Your task to perform on an android device: Is it going to rain today? Image 0: 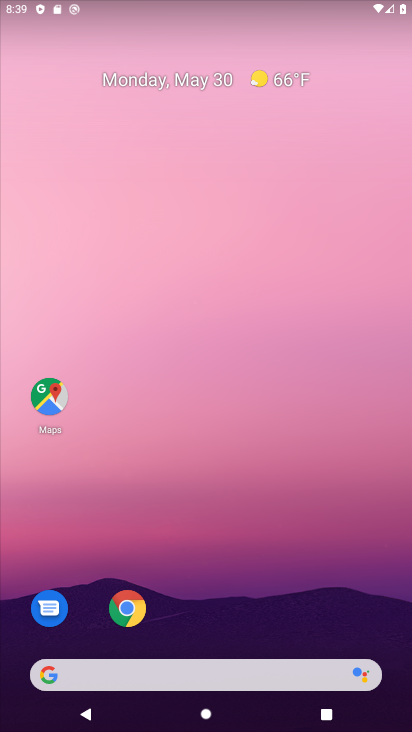
Step 0: drag from (248, 720) to (208, 65)
Your task to perform on an android device: Is it going to rain today? Image 1: 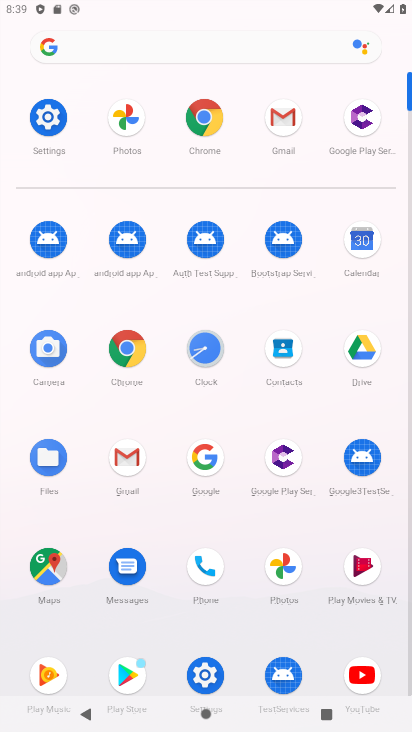
Step 1: click (205, 458)
Your task to perform on an android device: Is it going to rain today? Image 2: 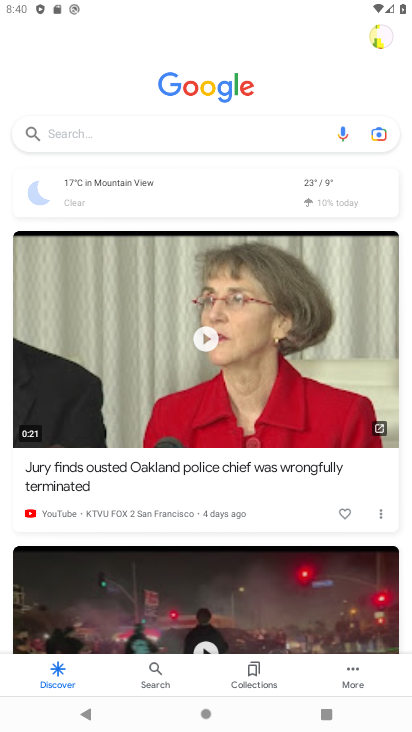
Step 2: click (86, 184)
Your task to perform on an android device: Is it going to rain today? Image 3: 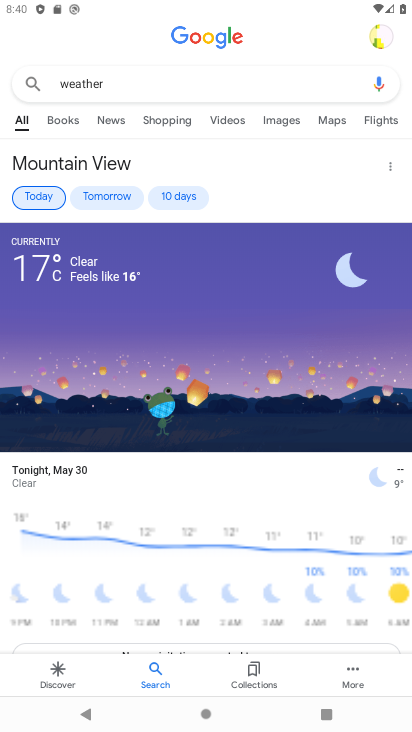
Step 3: click (42, 196)
Your task to perform on an android device: Is it going to rain today? Image 4: 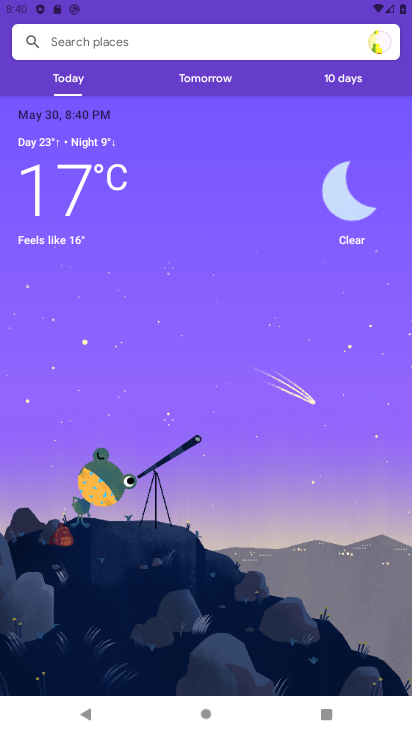
Step 4: task complete